Your task to perform on an android device: turn off picture-in-picture Image 0: 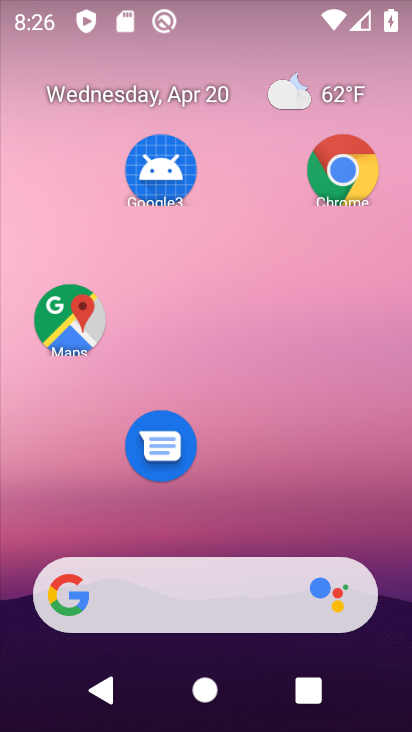
Step 0: click (257, 486)
Your task to perform on an android device: turn off picture-in-picture Image 1: 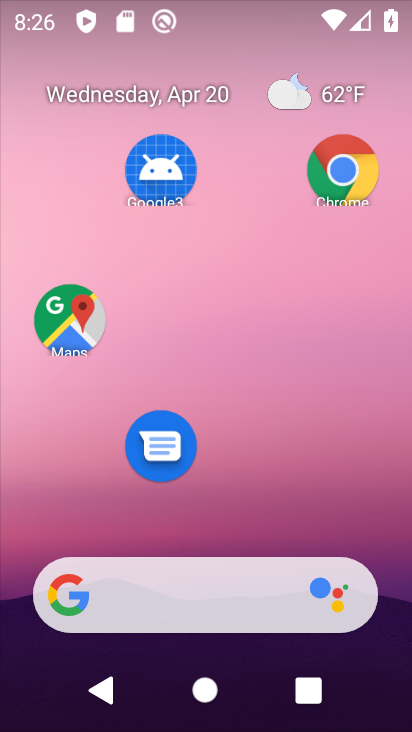
Step 1: drag from (257, 486) to (269, 0)
Your task to perform on an android device: turn off picture-in-picture Image 2: 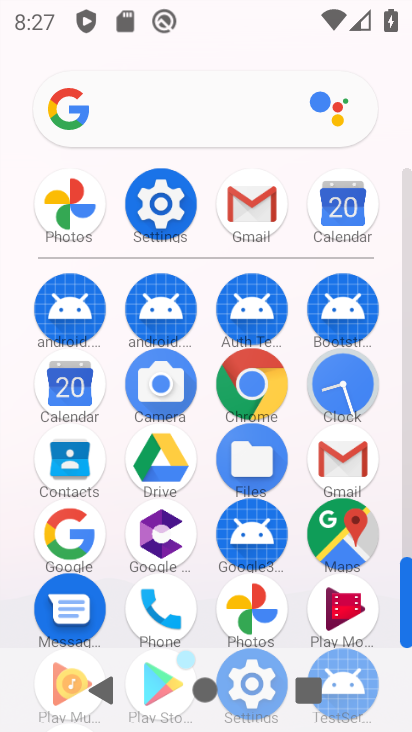
Step 2: click (159, 208)
Your task to perform on an android device: turn off picture-in-picture Image 3: 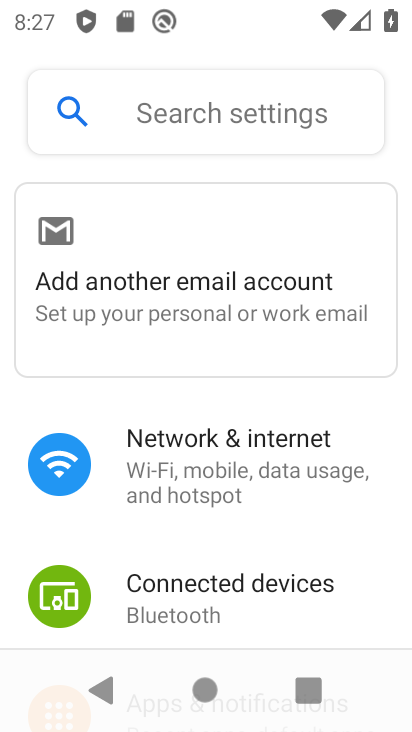
Step 3: drag from (231, 540) to (238, 256)
Your task to perform on an android device: turn off picture-in-picture Image 4: 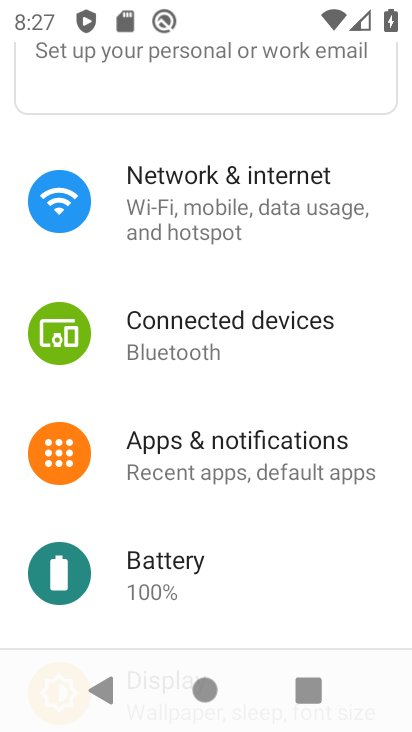
Step 4: click (247, 456)
Your task to perform on an android device: turn off picture-in-picture Image 5: 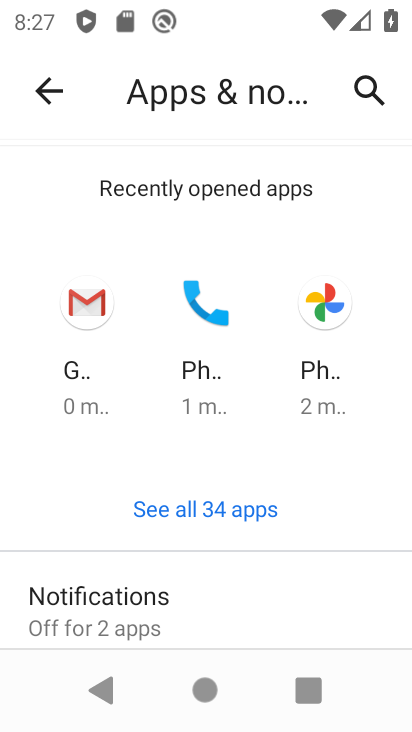
Step 5: drag from (264, 553) to (237, 198)
Your task to perform on an android device: turn off picture-in-picture Image 6: 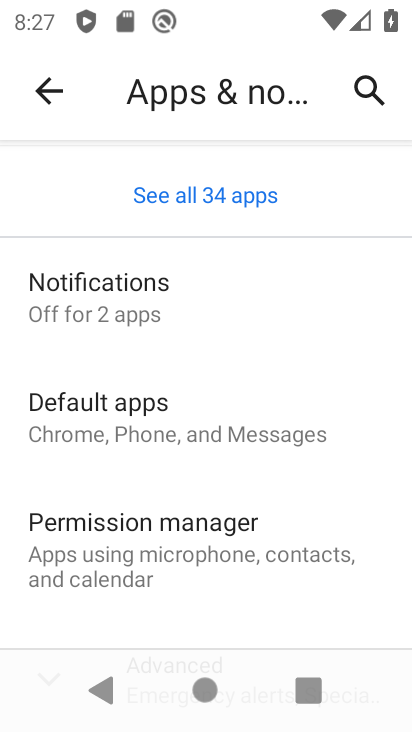
Step 6: drag from (273, 468) to (266, 115)
Your task to perform on an android device: turn off picture-in-picture Image 7: 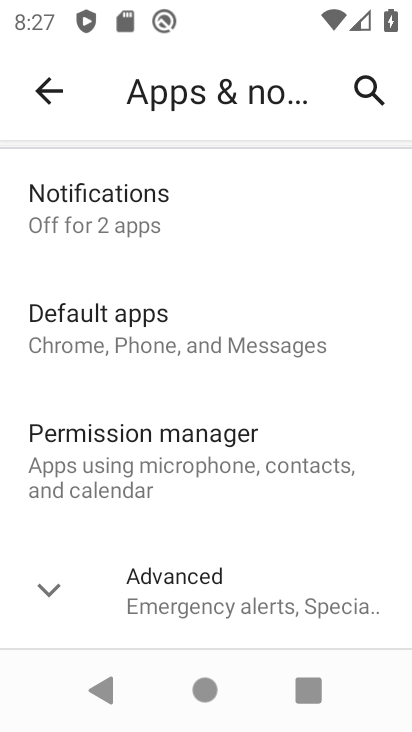
Step 7: click (47, 599)
Your task to perform on an android device: turn off picture-in-picture Image 8: 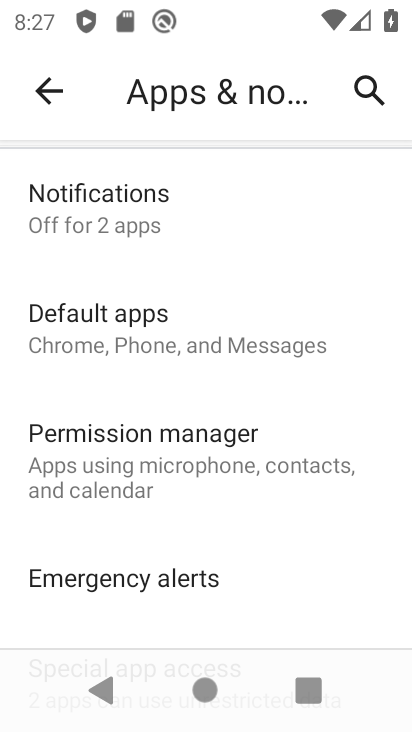
Step 8: drag from (256, 555) to (256, 245)
Your task to perform on an android device: turn off picture-in-picture Image 9: 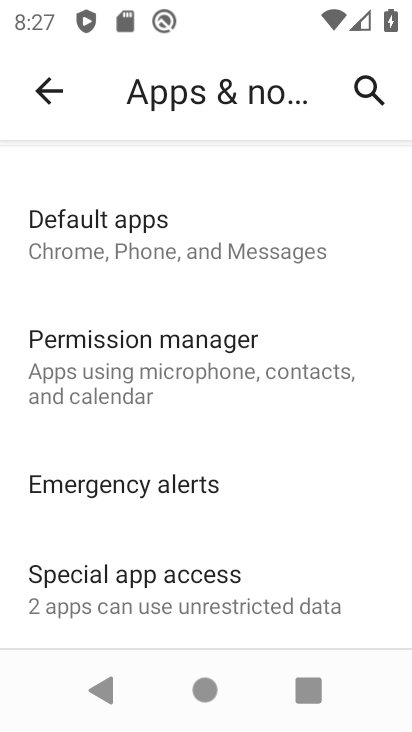
Step 9: click (170, 594)
Your task to perform on an android device: turn off picture-in-picture Image 10: 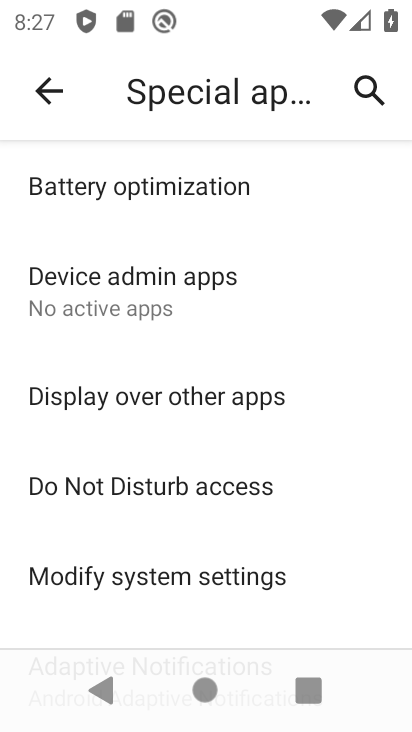
Step 10: drag from (182, 444) to (186, 168)
Your task to perform on an android device: turn off picture-in-picture Image 11: 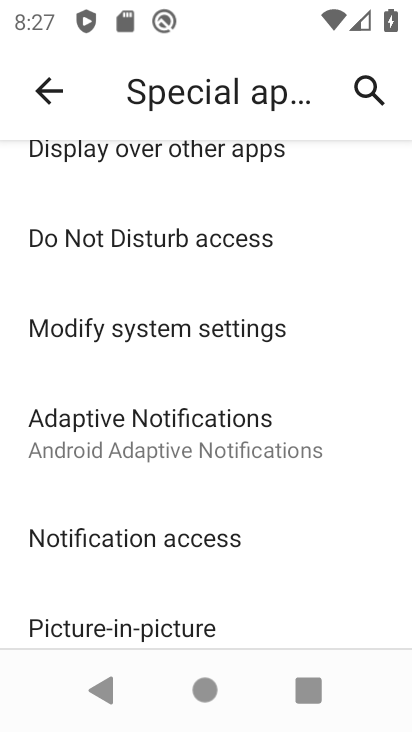
Step 11: click (161, 631)
Your task to perform on an android device: turn off picture-in-picture Image 12: 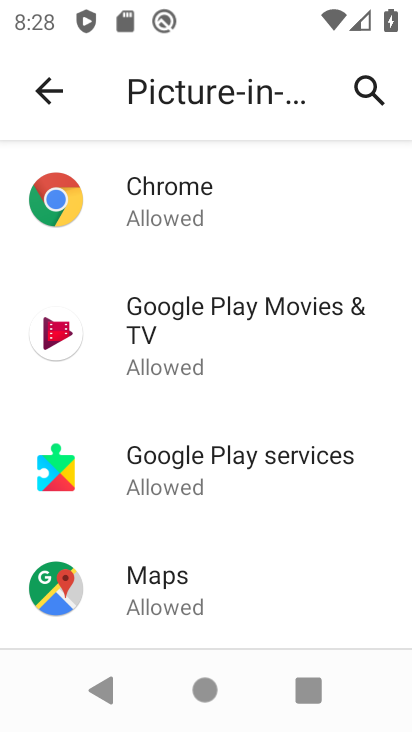
Step 12: click (163, 202)
Your task to perform on an android device: turn off picture-in-picture Image 13: 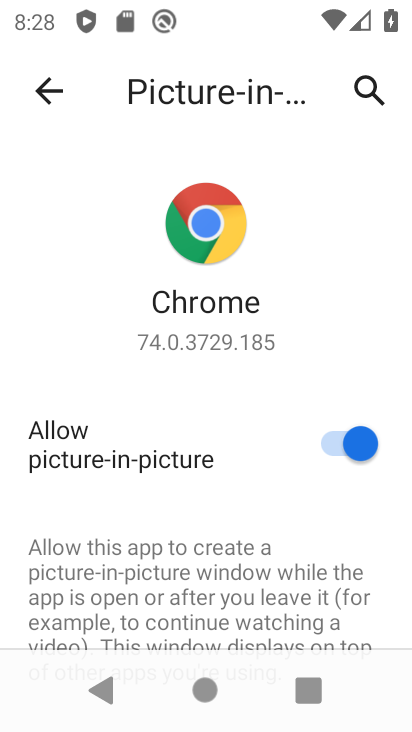
Step 13: click (367, 450)
Your task to perform on an android device: turn off picture-in-picture Image 14: 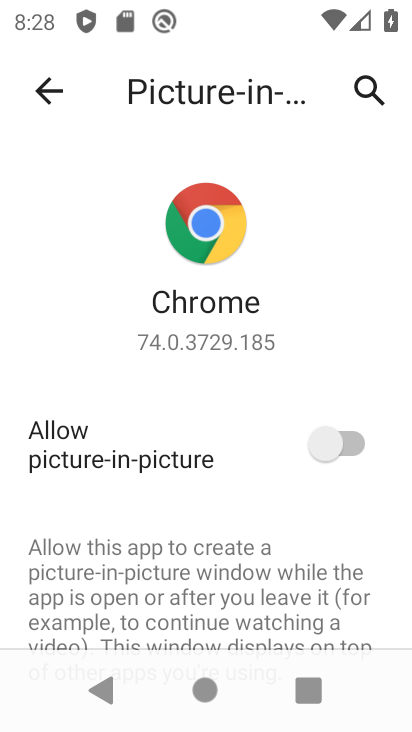
Step 14: click (48, 95)
Your task to perform on an android device: turn off picture-in-picture Image 15: 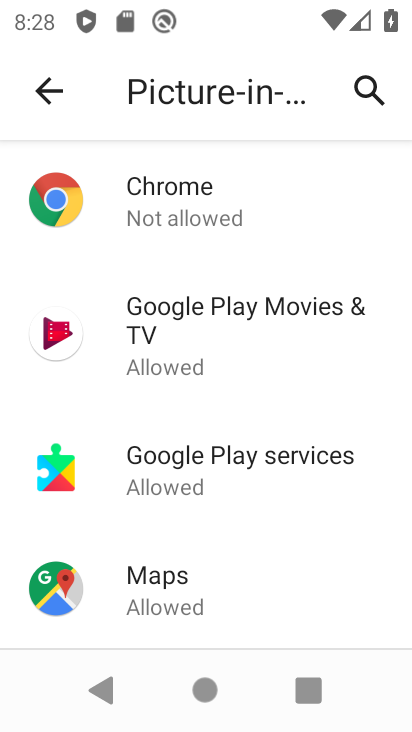
Step 15: click (158, 340)
Your task to perform on an android device: turn off picture-in-picture Image 16: 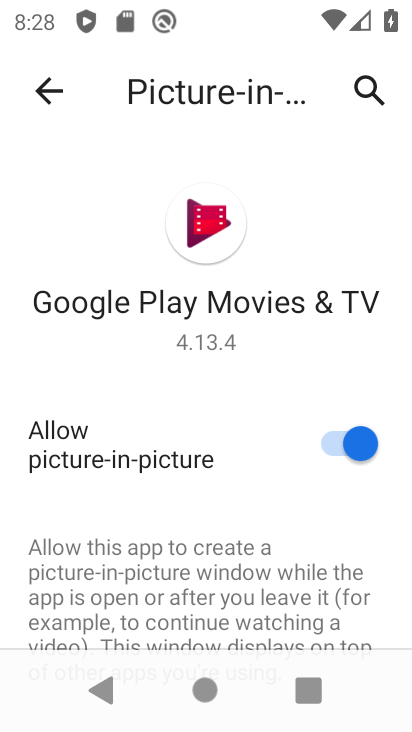
Step 16: click (363, 439)
Your task to perform on an android device: turn off picture-in-picture Image 17: 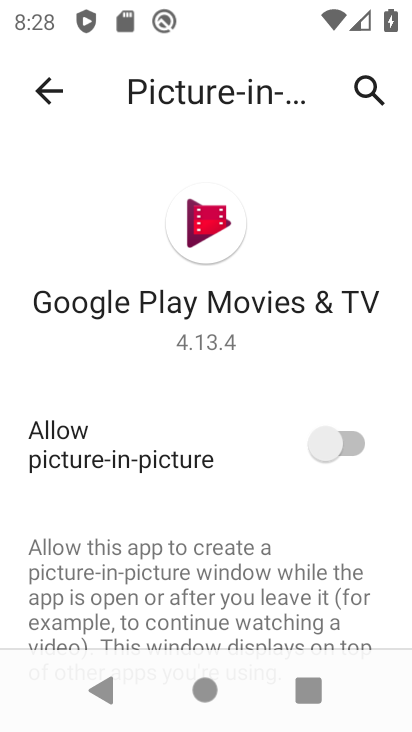
Step 17: click (44, 87)
Your task to perform on an android device: turn off picture-in-picture Image 18: 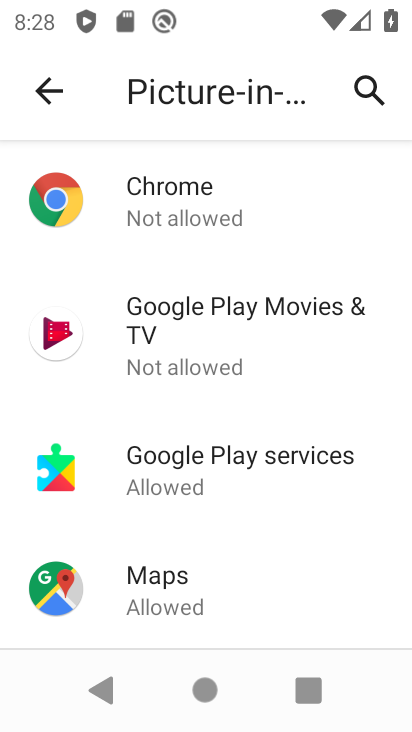
Step 18: click (182, 473)
Your task to perform on an android device: turn off picture-in-picture Image 19: 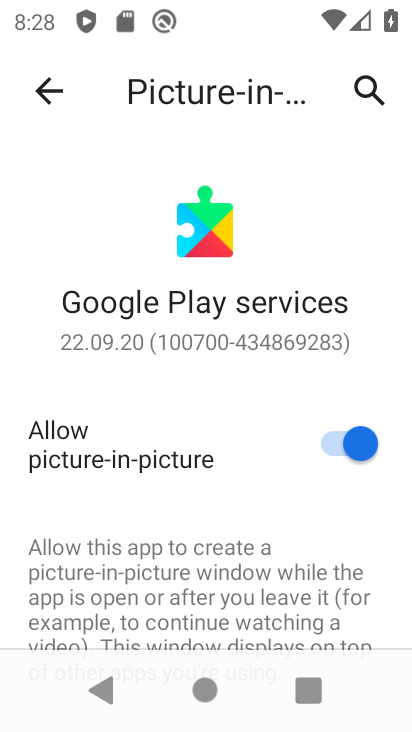
Step 19: click (353, 458)
Your task to perform on an android device: turn off picture-in-picture Image 20: 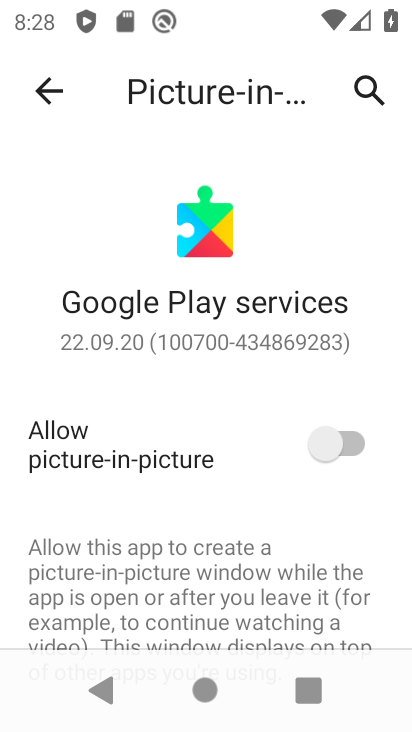
Step 20: click (49, 81)
Your task to perform on an android device: turn off picture-in-picture Image 21: 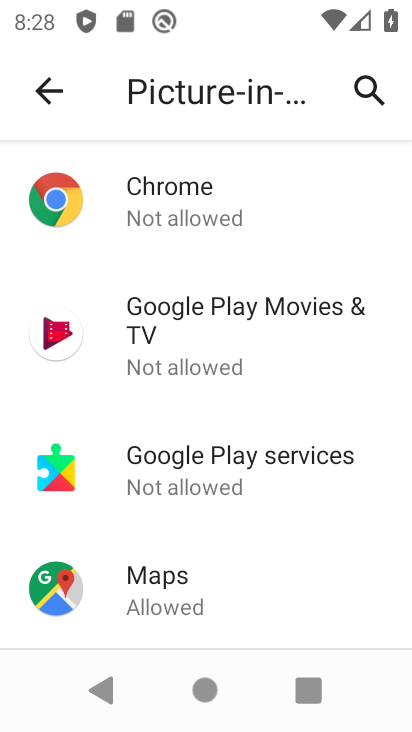
Step 21: click (162, 582)
Your task to perform on an android device: turn off picture-in-picture Image 22: 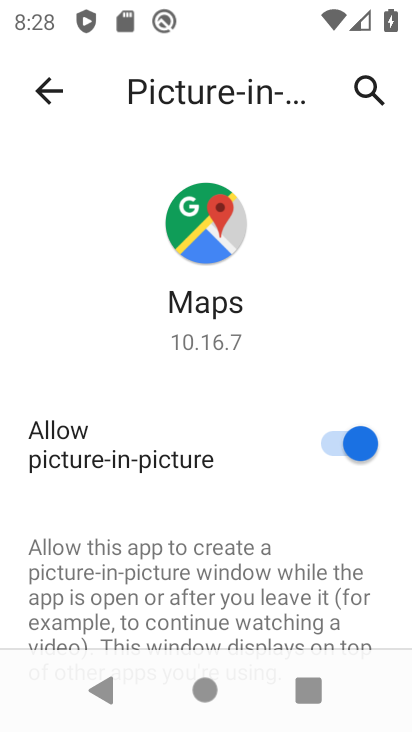
Step 22: click (357, 445)
Your task to perform on an android device: turn off picture-in-picture Image 23: 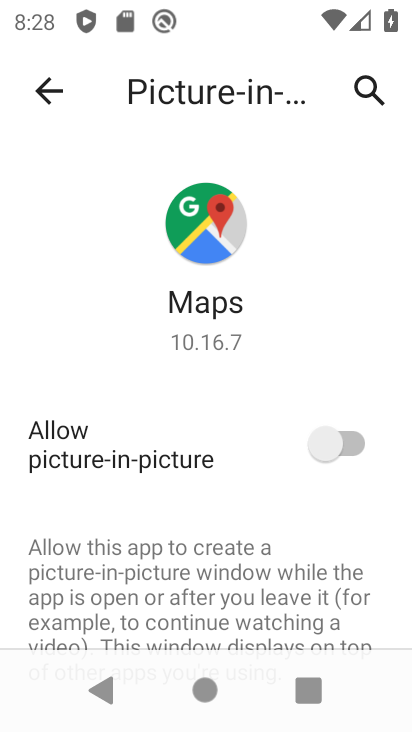
Step 23: click (42, 93)
Your task to perform on an android device: turn off picture-in-picture Image 24: 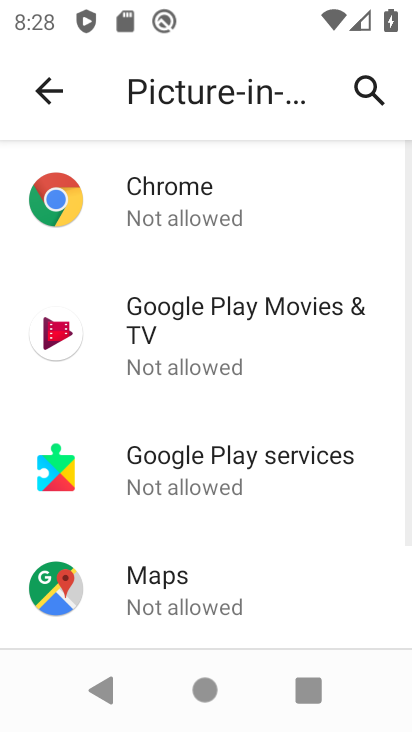
Step 24: drag from (290, 583) to (284, 224)
Your task to perform on an android device: turn off picture-in-picture Image 25: 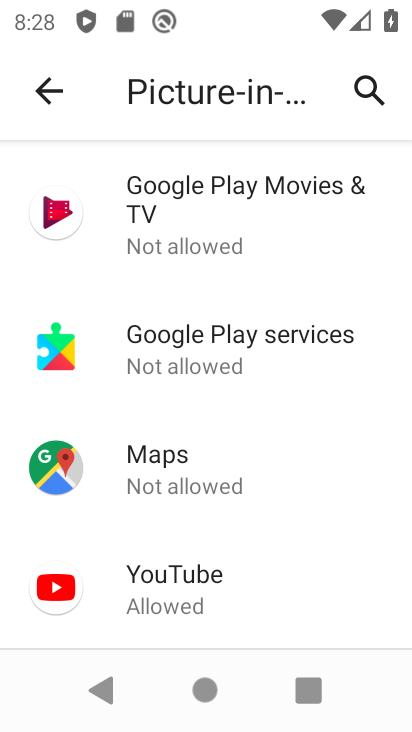
Step 25: click (176, 597)
Your task to perform on an android device: turn off picture-in-picture Image 26: 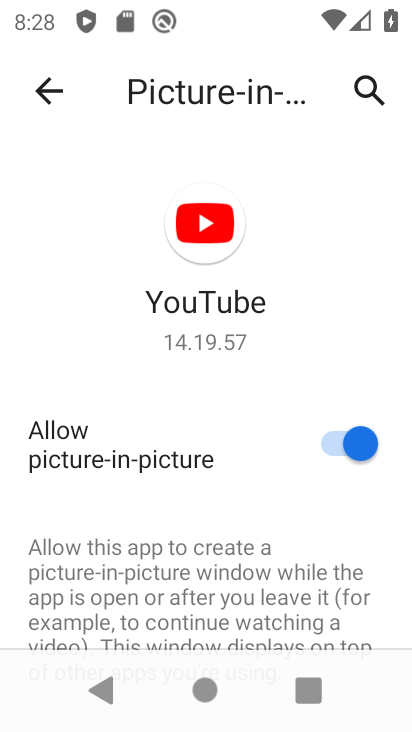
Step 26: click (357, 441)
Your task to perform on an android device: turn off picture-in-picture Image 27: 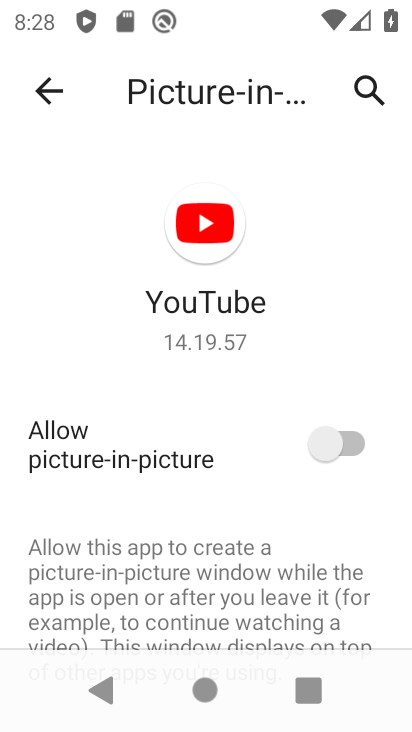
Step 27: click (44, 86)
Your task to perform on an android device: turn off picture-in-picture Image 28: 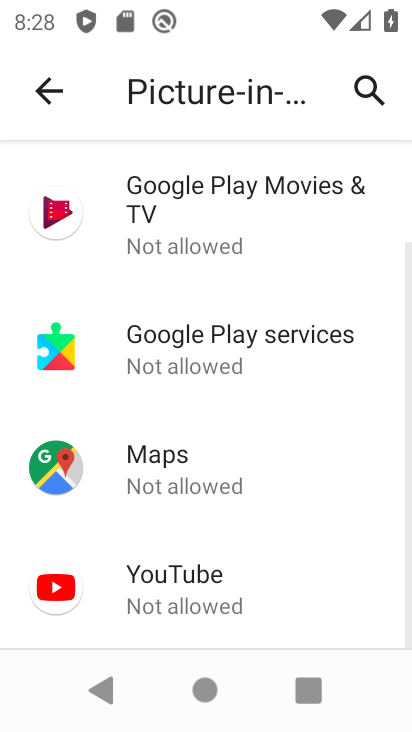
Step 28: task complete